Your task to perform on an android device: Empty the shopping cart on ebay.com. Add "lg ultragear" to the cart on ebay.com, then select checkout. Image 0: 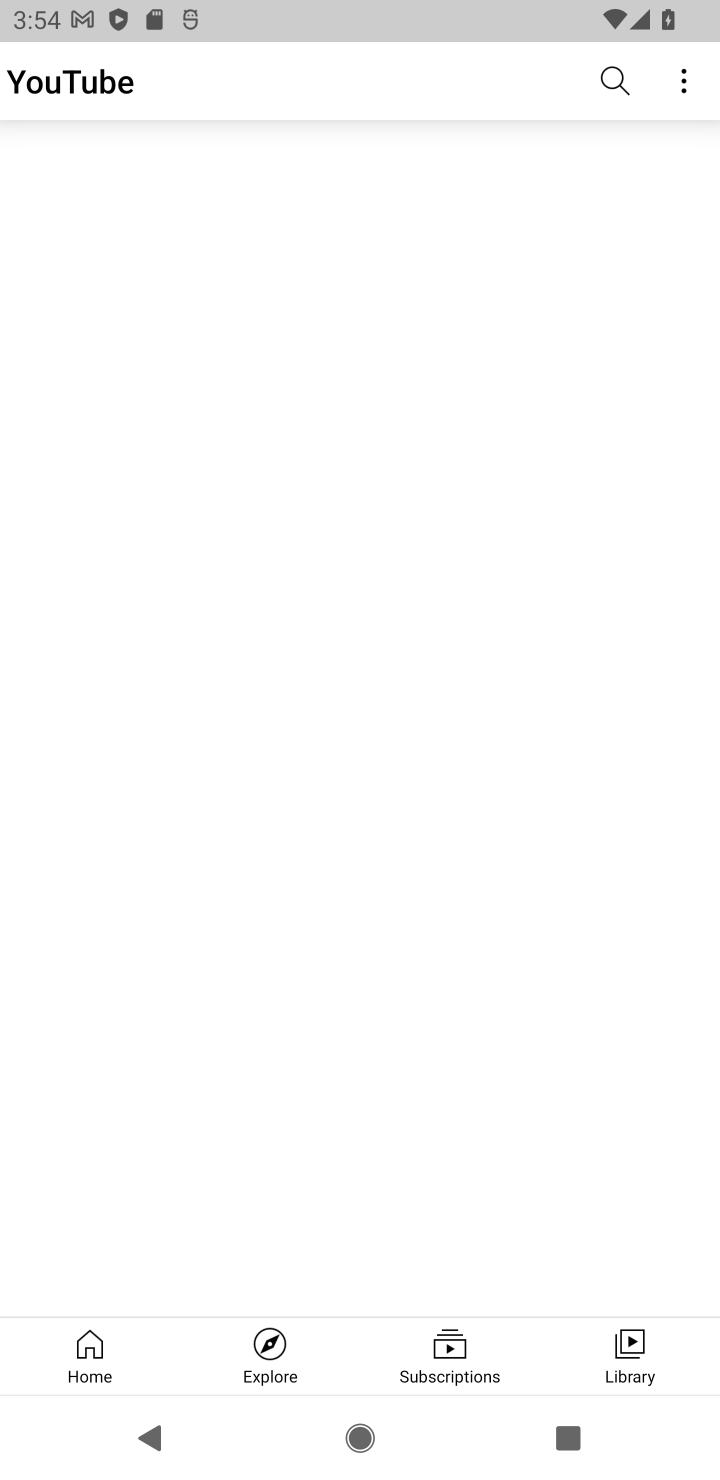
Step 0: press home button
Your task to perform on an android device: Empty the shopping cart on ebay.com. Add "lg ultragear" to the cart on ebay.com, then select checkout. Image 1: 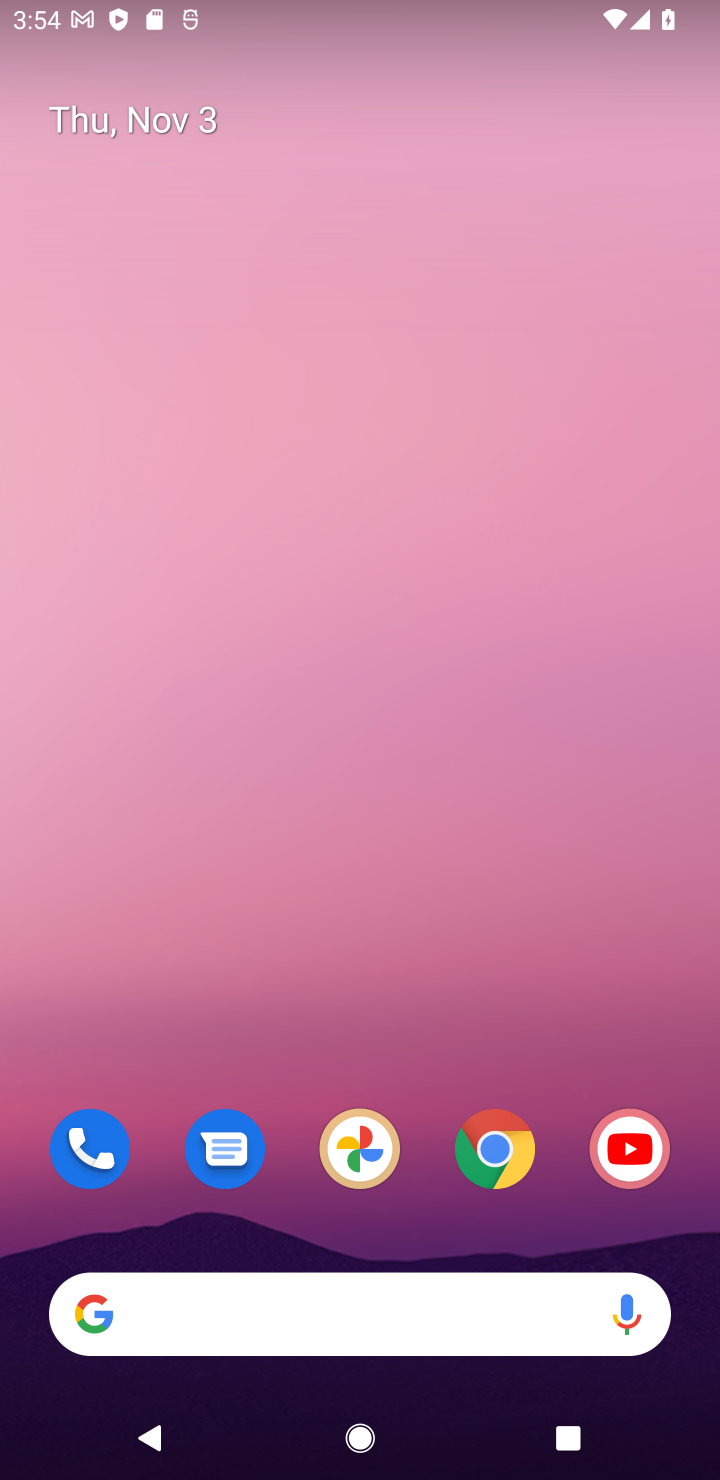
Step 1: click (488, 1162)
Your task to perform on an android device: Empty the shopping cart on ebay.com. Add "lg ultragear" to the cart on ebay.com, then select checkout. Image 2: 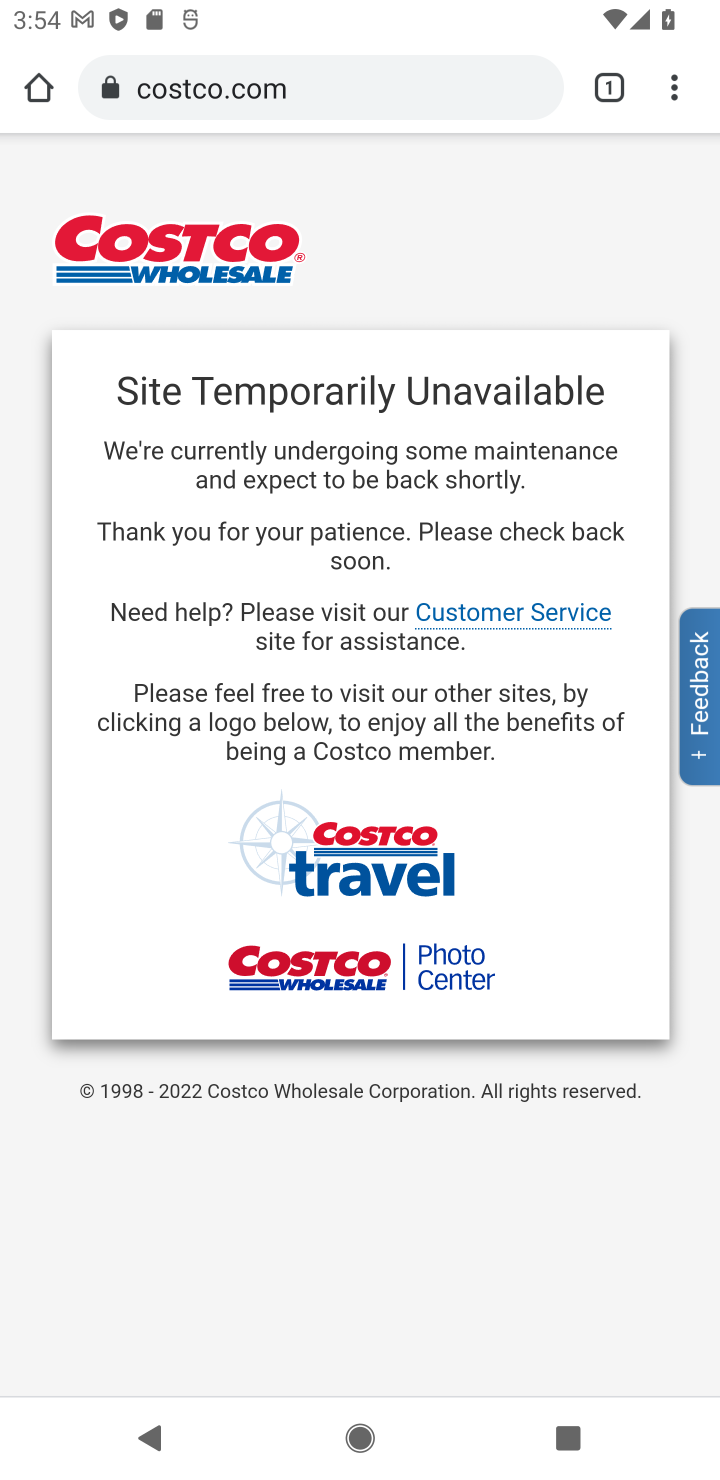
Step 2: click (216, 89)
Your task to perform on an android device: Empty the shopping cart on ebay.com. Add "lg ultragear" to the cart on ebay.com, then select checkout. Image 3: 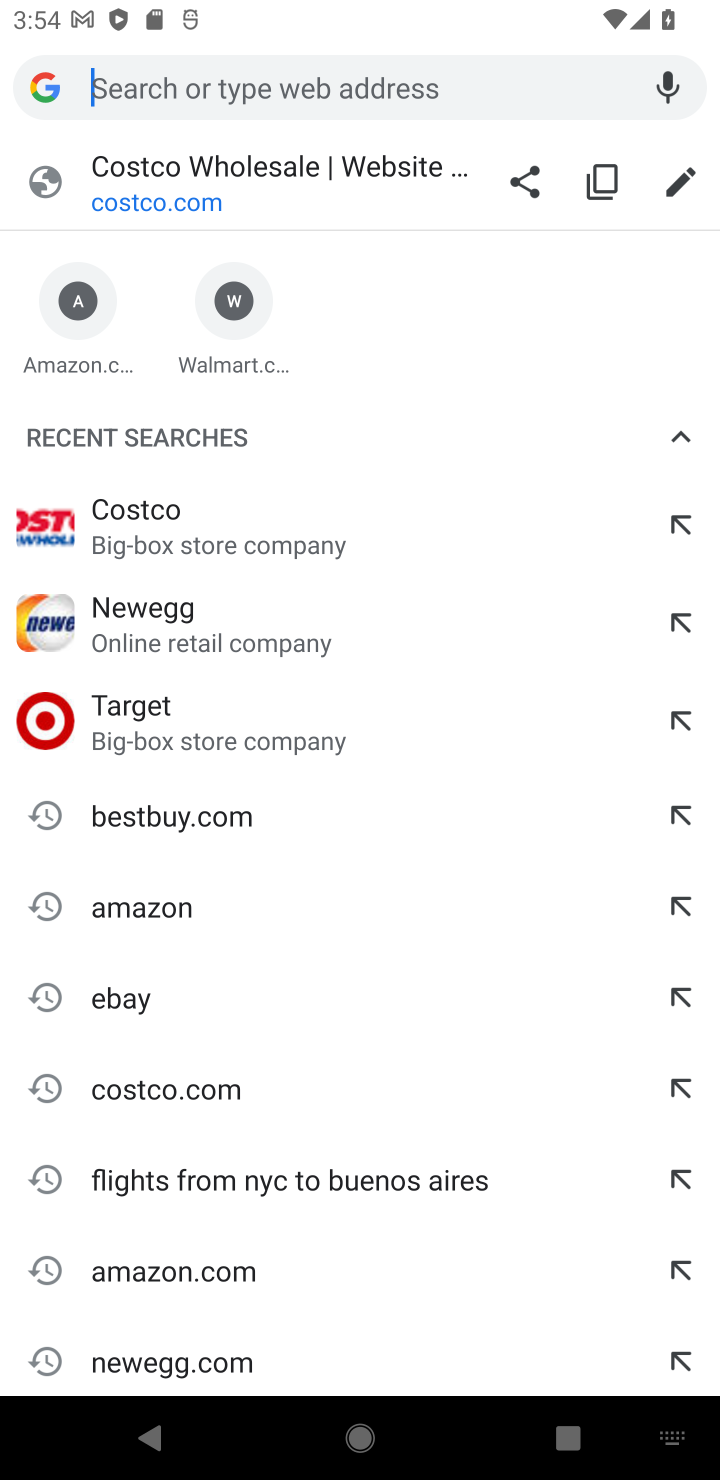
Step 3: type "ebay"
Your task to perform on an android device: Empty the shopping cart on ebay.com. Add "lg ultragear" to the cart on ebay.com, then select checkout. Image 4: 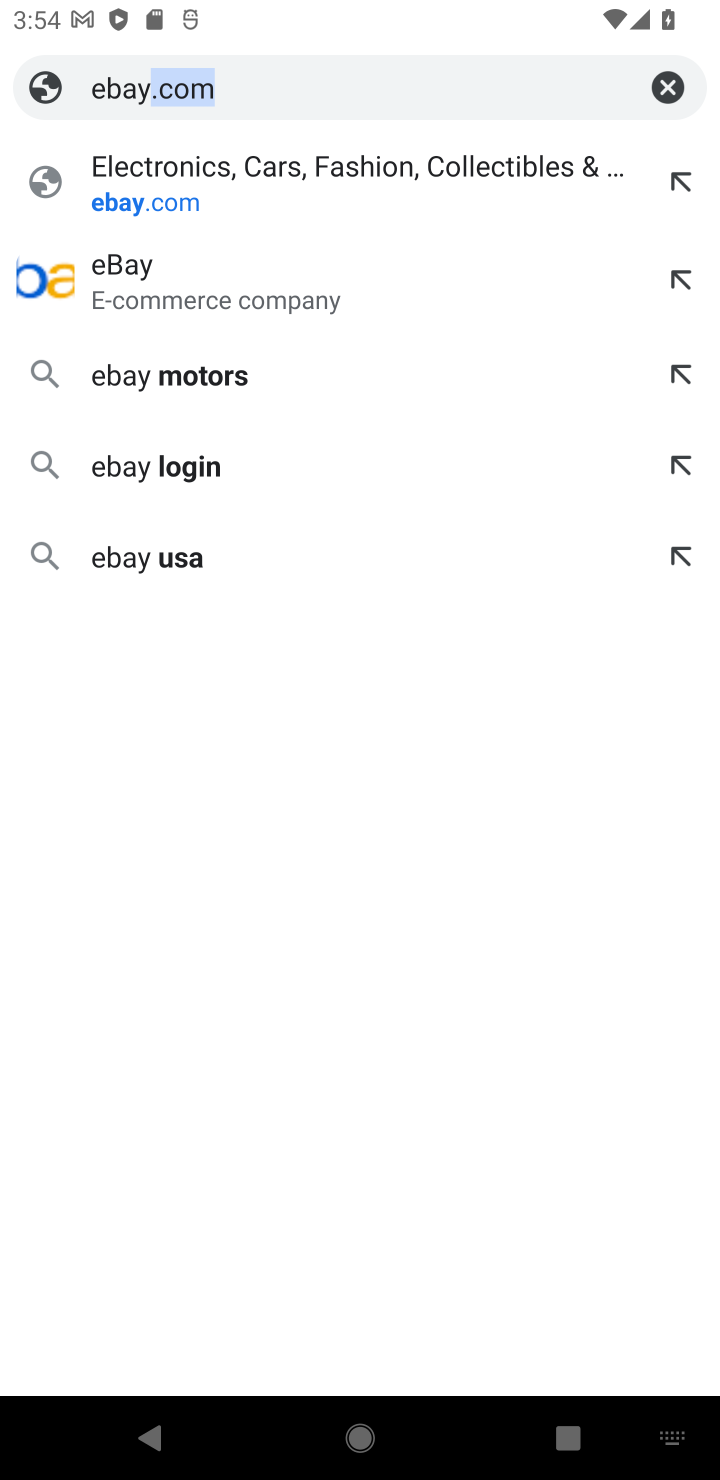
Step 4: click (325, 190)
Your task to perform on an android device: Empty the shopping cart on ebay.com. Add "lg ultragear" to the cart on ebay.com, then select checkout. Image 5: 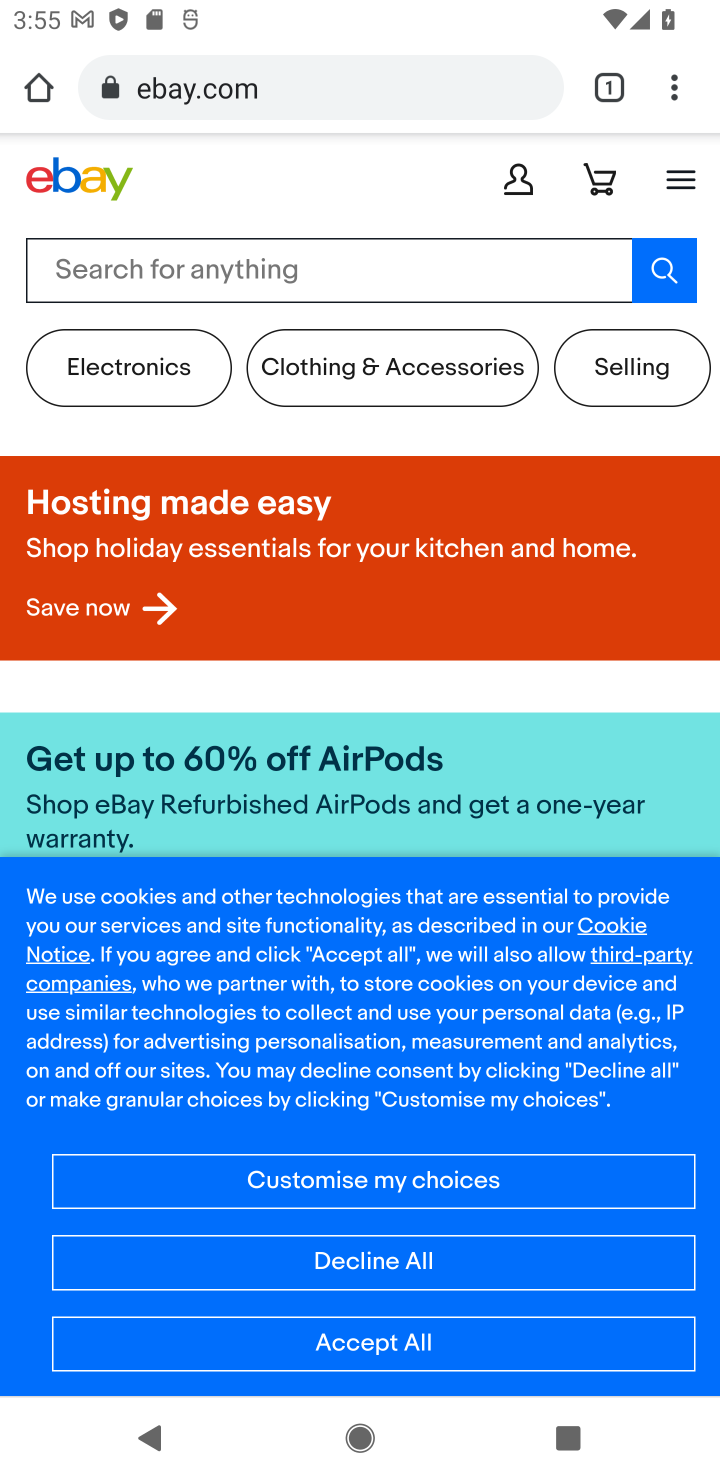
Step 5: click (228, 264)
Your task to perform on an android device: Empty the shopping cart on ebay.com. Add "lg ultragear" to the cart on ebay.com, then select checkout. Image 6: 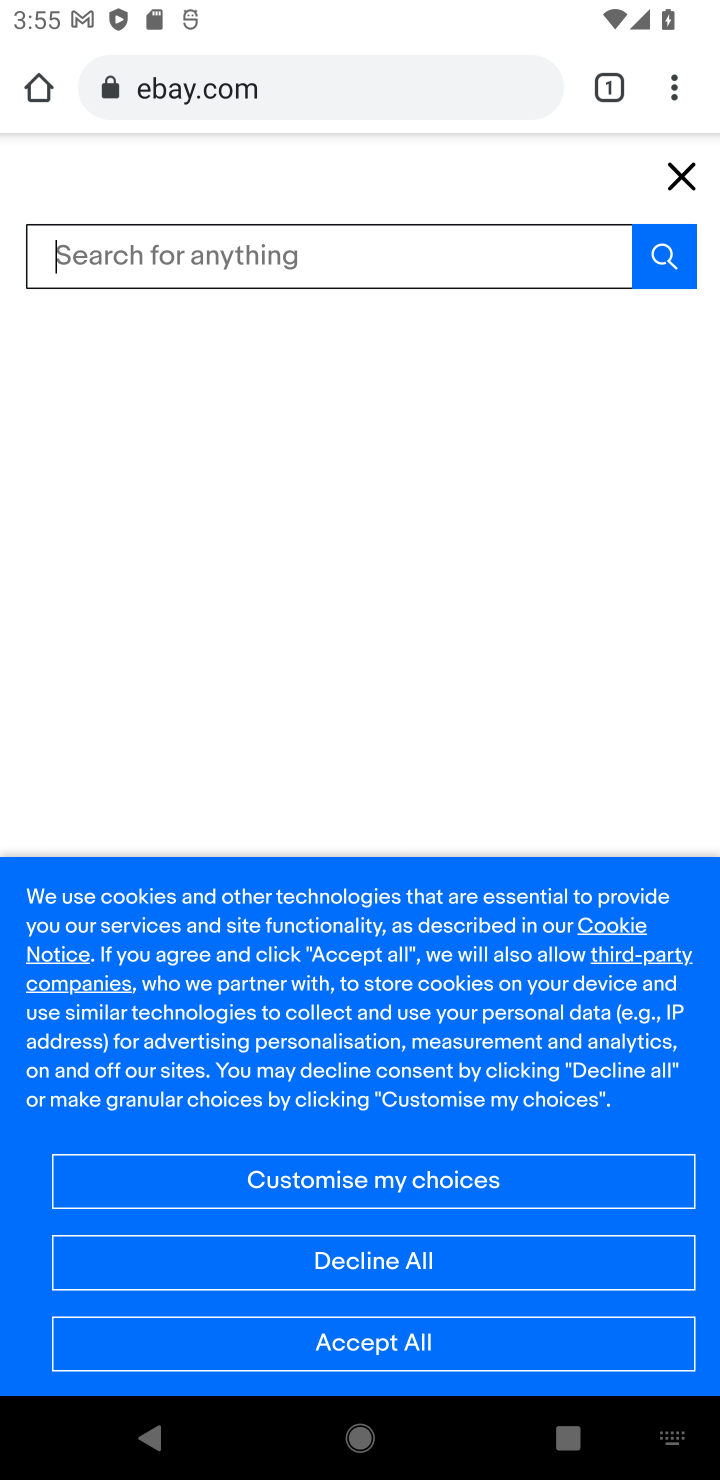
Step 6: type "lg ultragear"
Your task to perform on an android device: Empty the shopping cart on ebay.com. Add "lg ultragear" to the cart on ebay.com, then select checkout. Image 7: 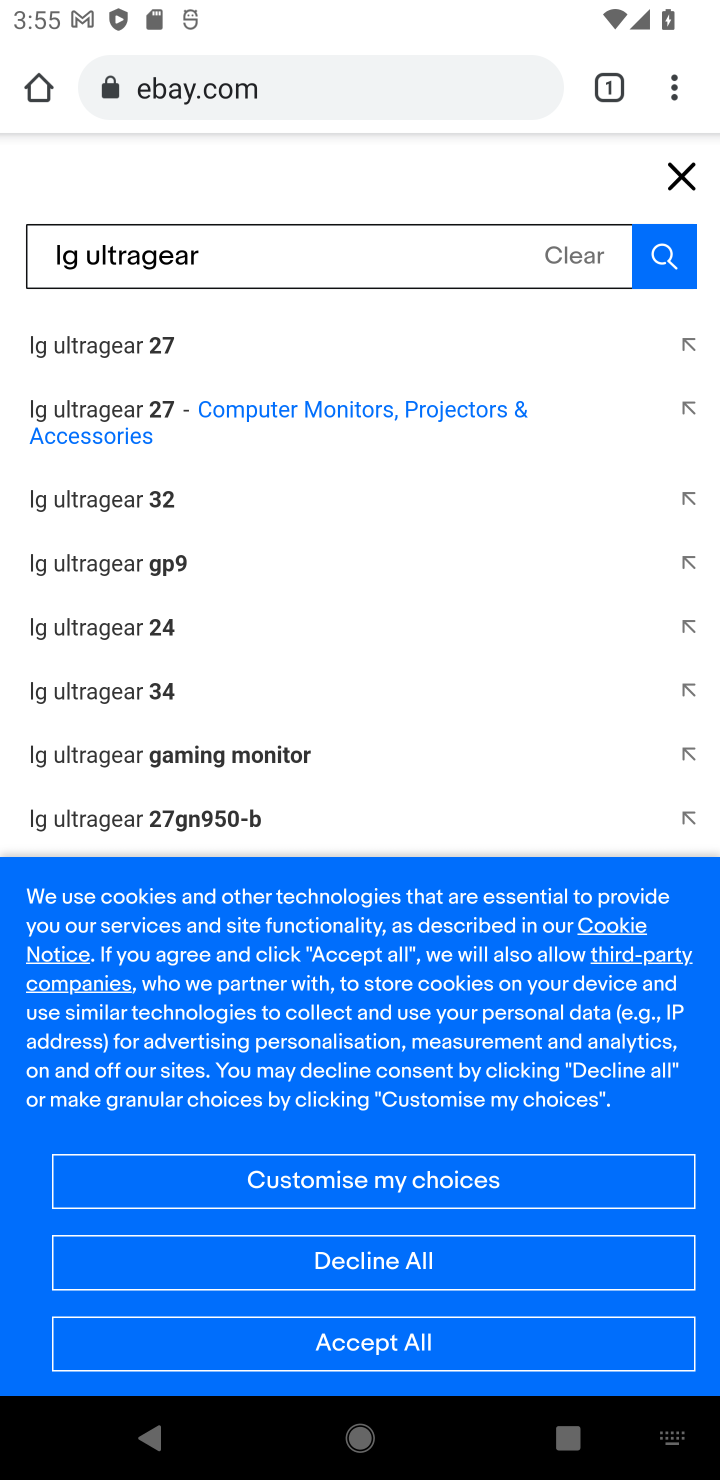
Step 7: click (450, 406)
Your task to perform on an android device: Empty the shopping cart on ebay.com. Add "lg ultragear" to the cart on ebay.com, then select checkout. Image 8: 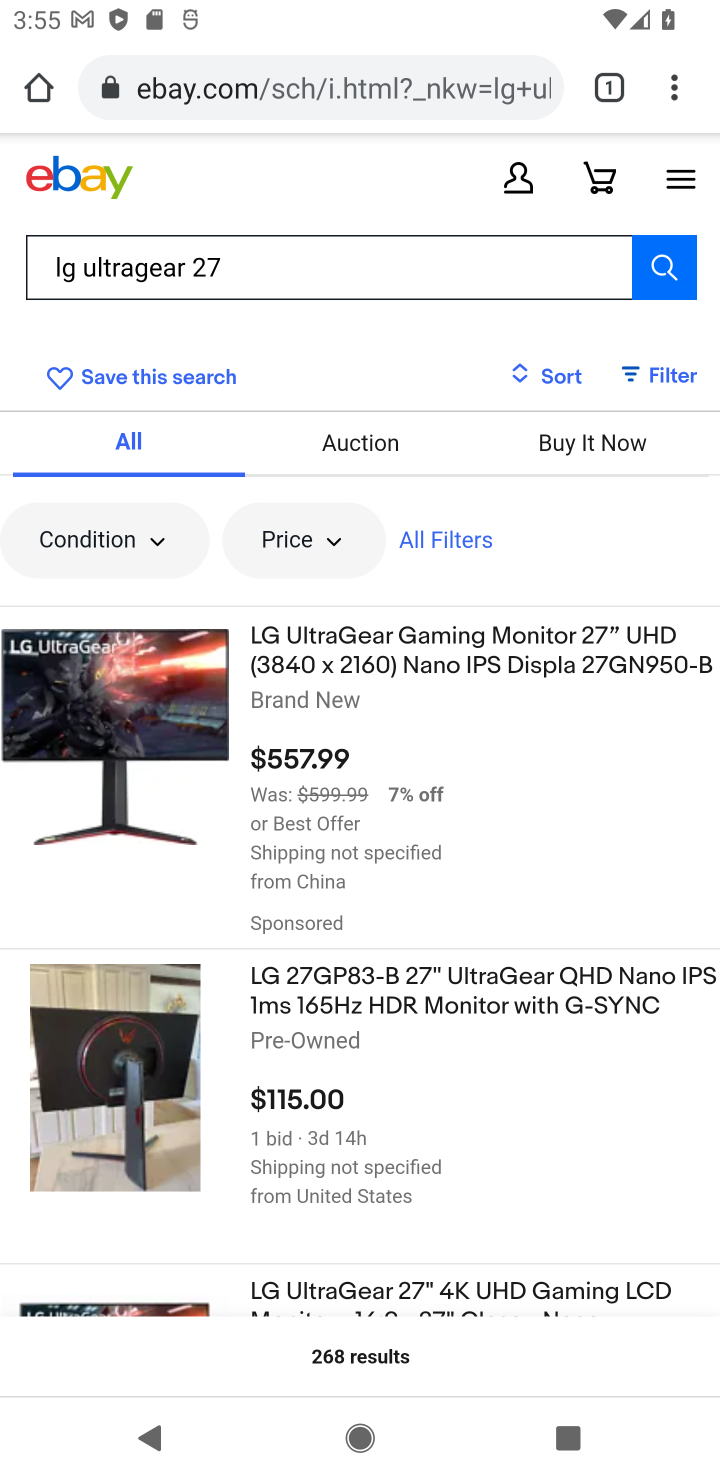
Step 8: click (414, 656)
Your task to perform on an android device: Empty the shopping cart on ebay.com. Add "lg ultragear" to the cart on ebay.com, then select checkout. Image 9: 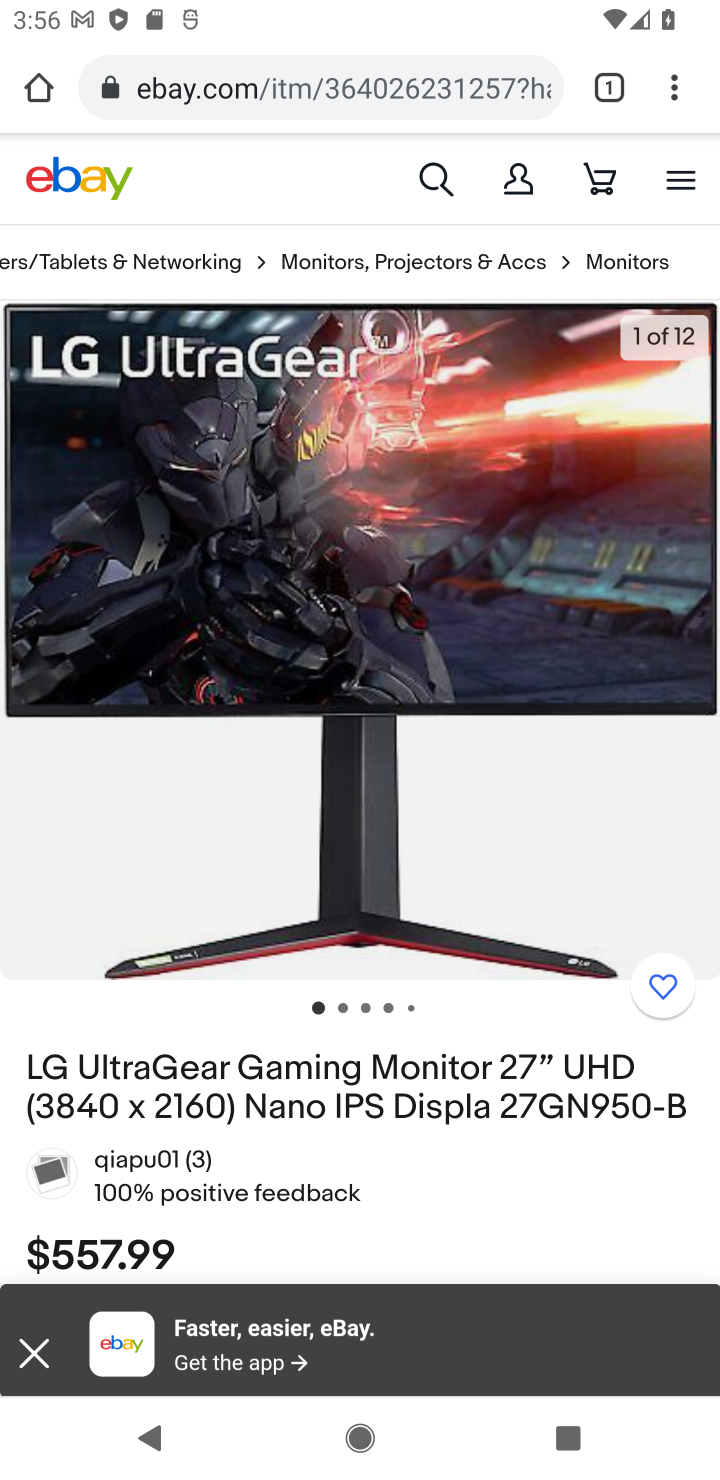
Step 9: drag from (425, 1143) to (368, 336)
Your task to perform on an android device: Empty the shopping cart on ebay.com. Add "lg ultragear" to the cart on ebay.com, then select checkout. Image 10: 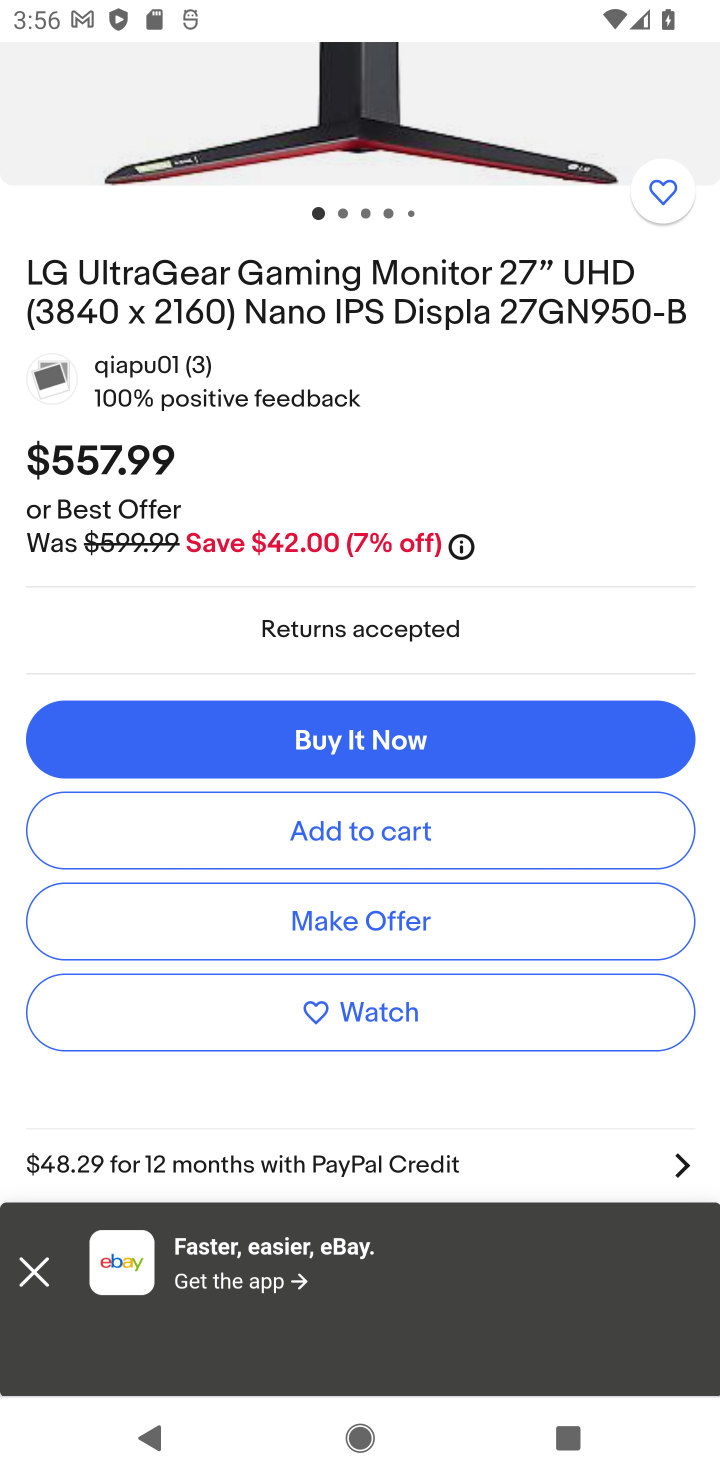
Step 10: click (360, 837)
Your task to perform on an android device: Empty the shopping cart on ebay.com. Add "lg ultragear" to the cart on ebay.com, then select checkout. Image 11: 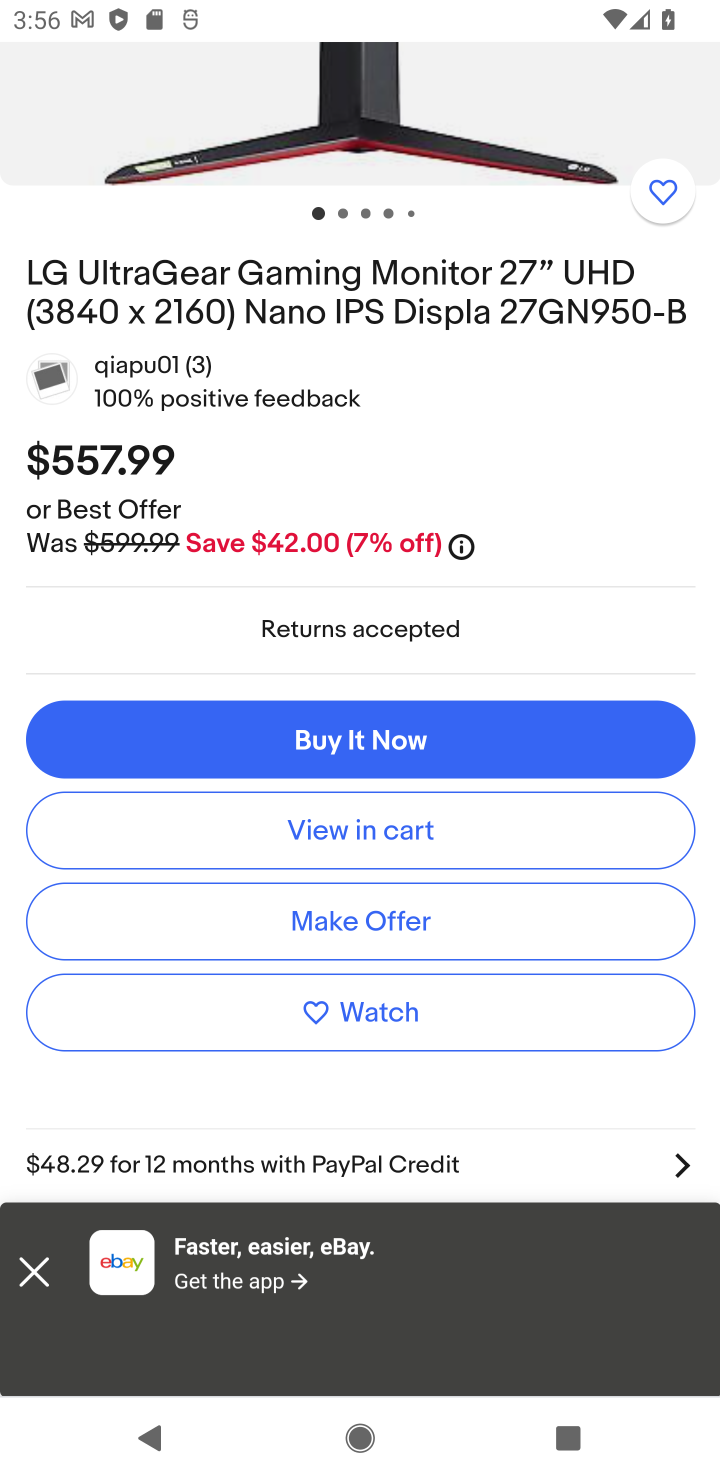
Step 11: click (356, 824)
Your task to perform on an android device: Empty the shopping cart on ebay.com. Add "lg ultragear" to the cart on ebay.com, then select checkout. Image 12: 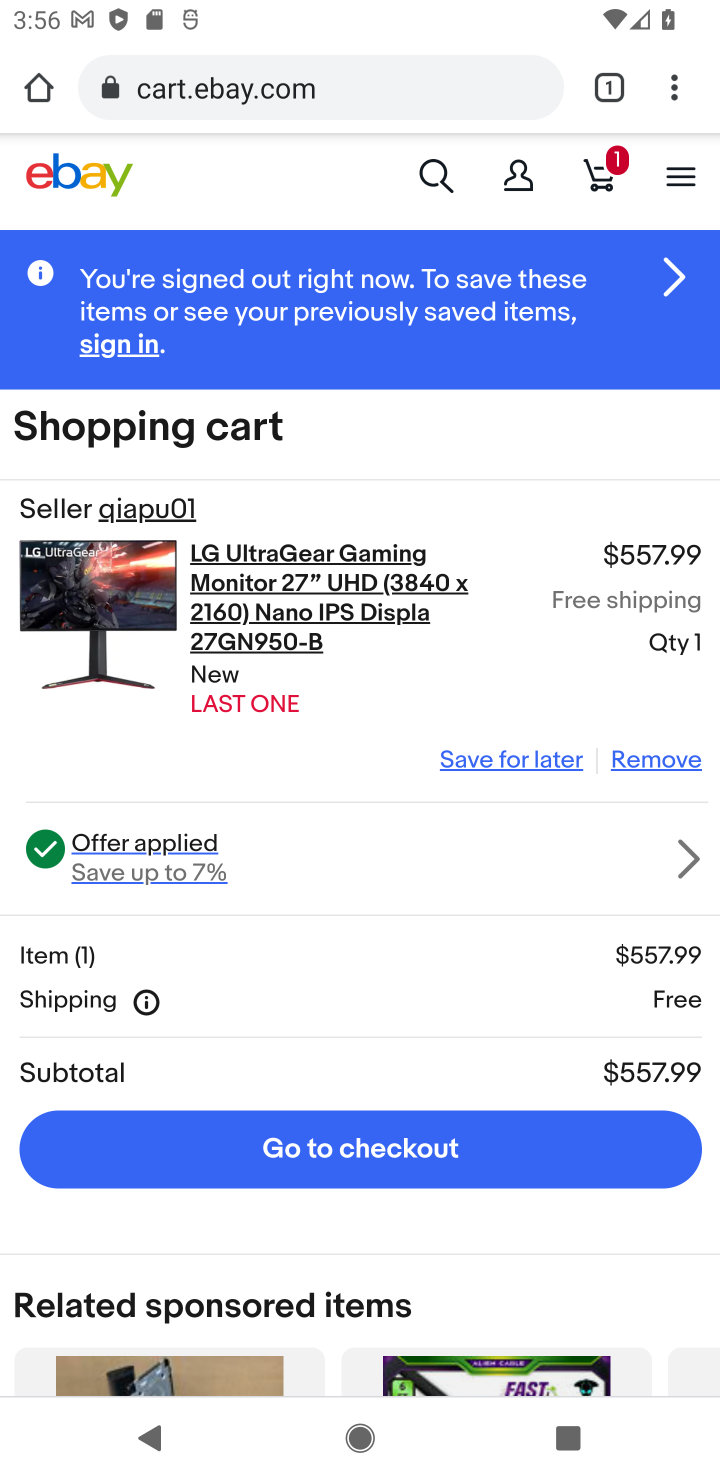
Step 12: click (358, 1144)
Your task to perform on an android device: Empty the shopping cart on ebay.com. Add "lg ultragear" to the cart on ebay.com, then select checkout. Image 13: 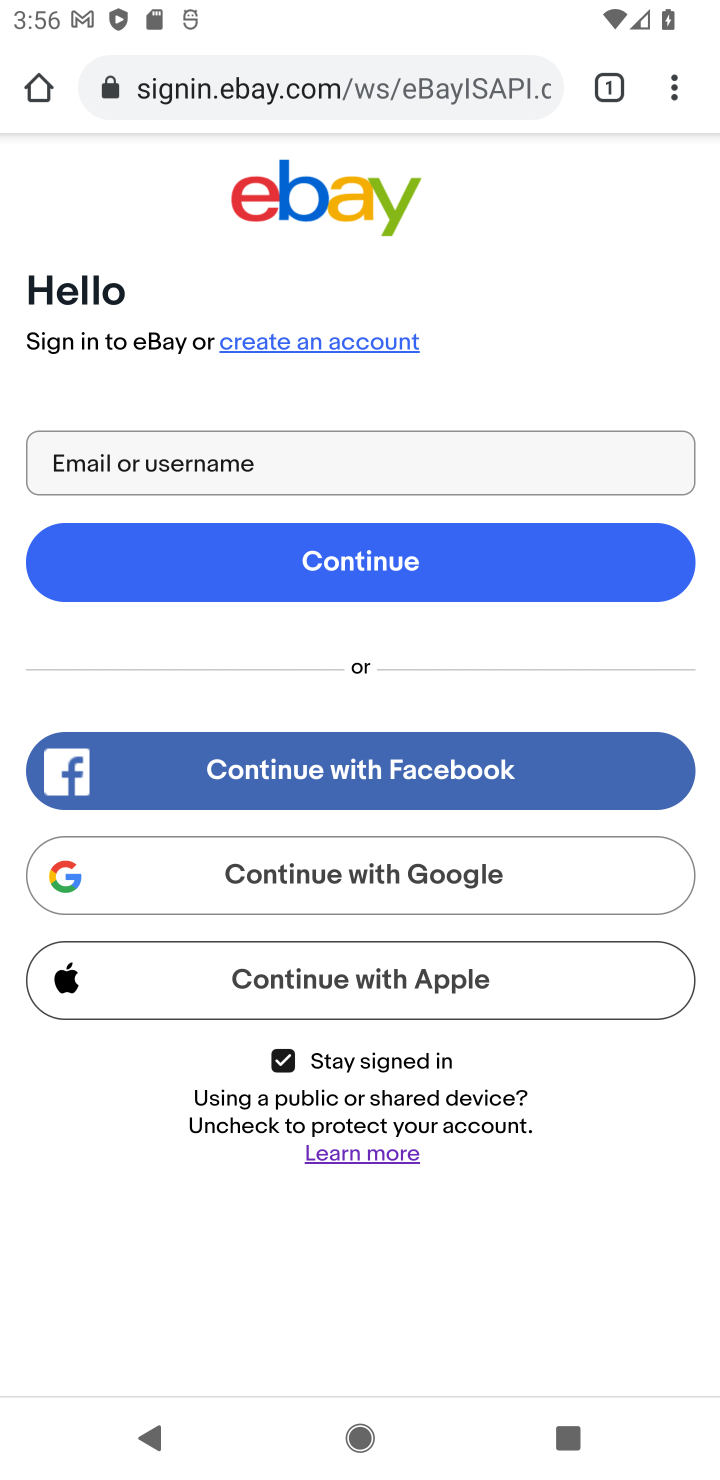
Step 13: task complete